Your task to perform on an android device: toggle pop-ups in chrome Image 0: 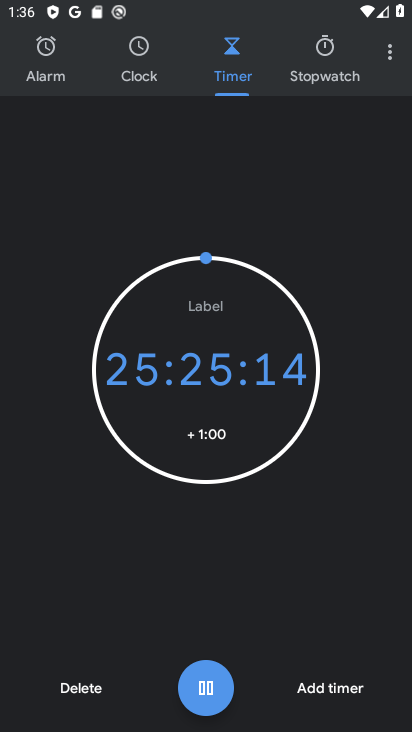
Step 0: press home button
Your task to perform on an android device: toggle pop-ups in chrome Image 1: 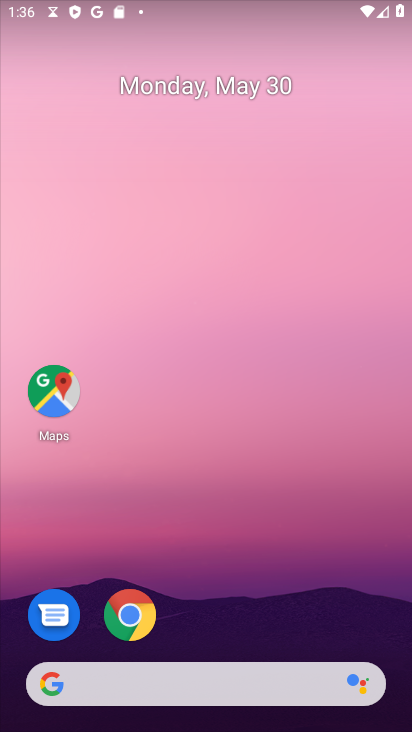
Step 1: drag from (204, 608) to (128, 111)
Your task to perform on an android device: toggle pop-ups in chrome Image 2: 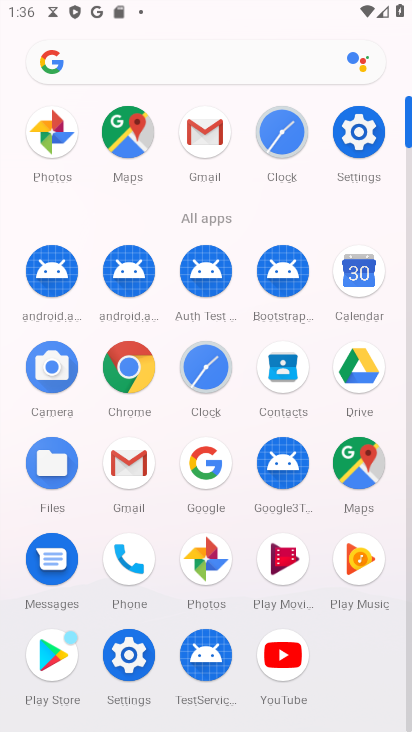
Step 2: click (133, 382)
Your task to perform on an android device: toggle pop-ups in chrome Image 3: 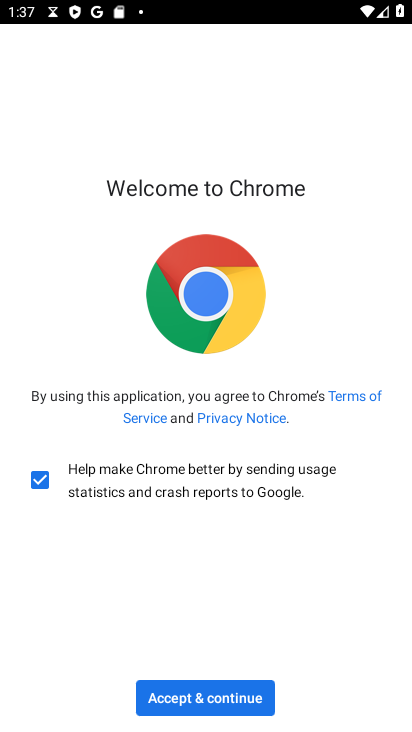
Step 3: click (197, 694)
Your task to perform on an android device: toggle pop-ups in chrome Image 4: 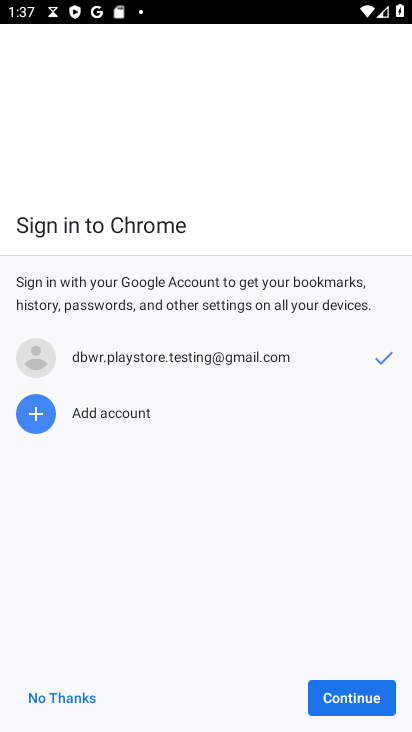
Step 4: click (56, 694)
Your task to perform on an android device: toggle pop-ups in chrome Image 5: 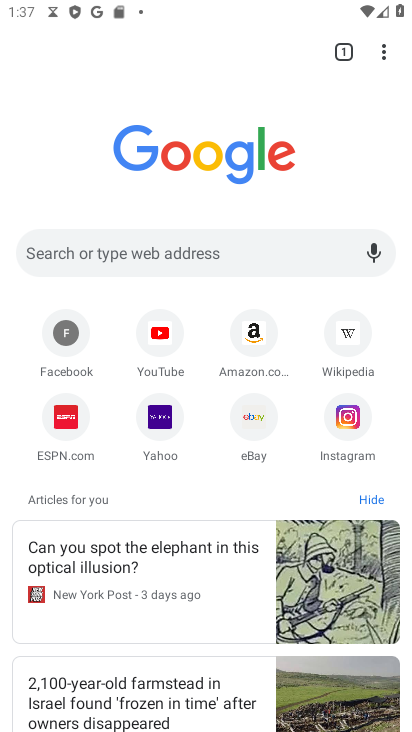
Step 5: drag from (391, 55) to (235, 441)
Your task to perform on an android device: toggle pop-ups in chrome Image 6: 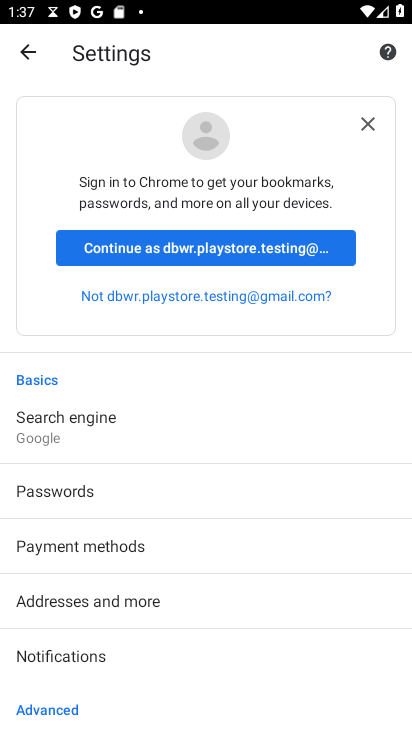
Step 6: drag from (191, 607) to (202, 120)
Your task to perform on an android device: toggle pop-ups in chrome Image 7: 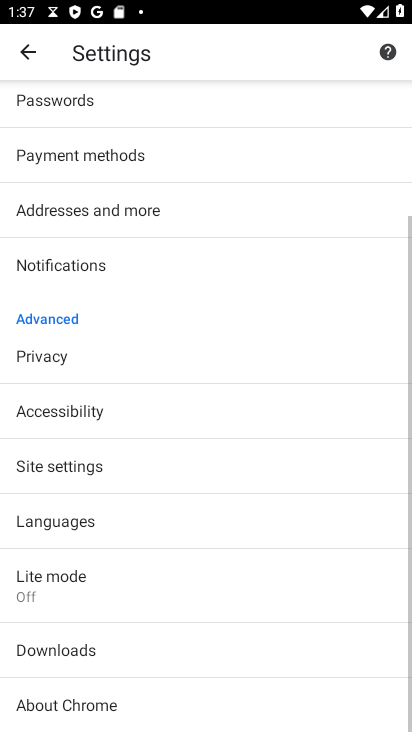
Step 7: click (126, 468)
Your task to perform on an android device: toggle pop-ups in chrome Image 8: 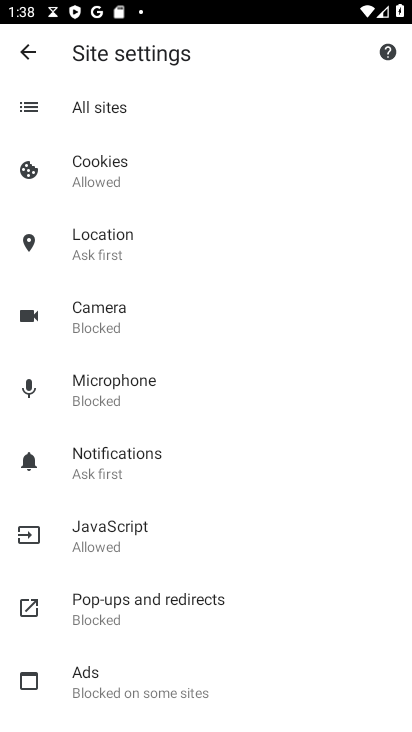
Step 8: click (133, 618)
Your task to perform on an android device: toggle pop-ups in chrome Image 9: 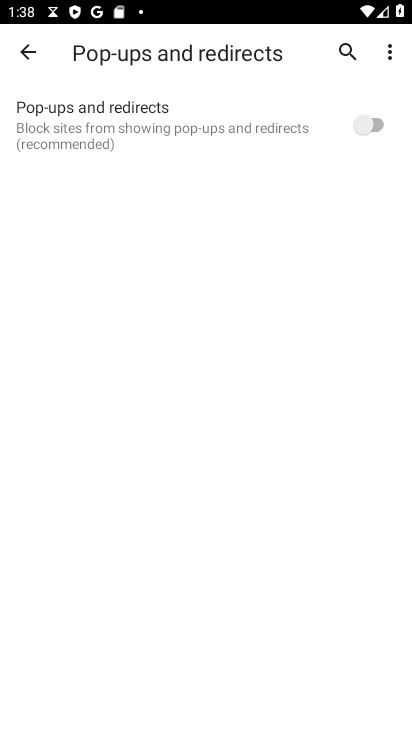
Step 9: click (370, 113)
Your task to perform on an android device: toggle pop-ups in chrome Image 10: 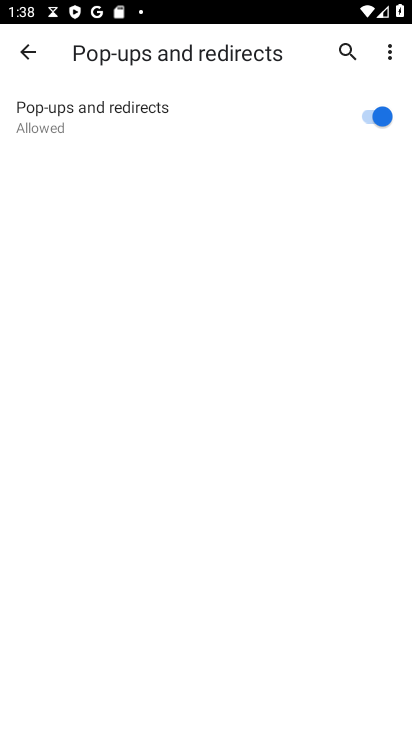
Step 10: task complete